Your task to perform on an android device: Open calendar and show me the fourth week of next month Image 0: 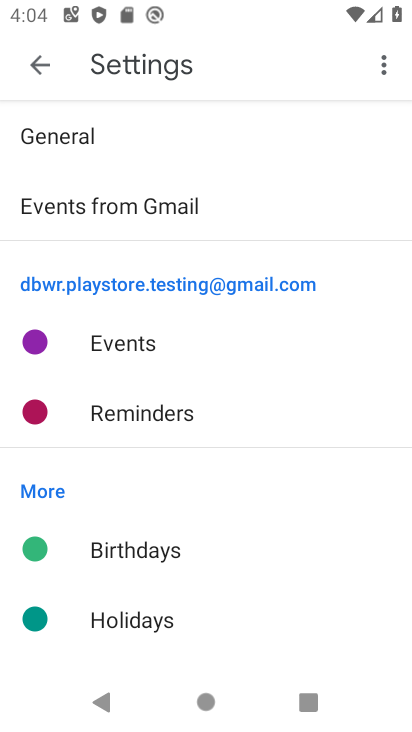
Step 0: press home button
Your task to perform on an android device: Open calendar and show me the fourth week of next month Image 1: 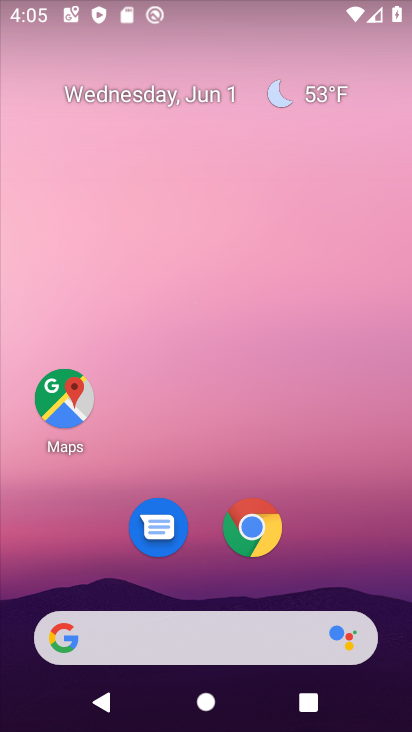
Step 1: drag from (311, 571) to (336, 93)
Your task to perform on an android device: Open calendar and show me the fourth week of next month Image 2: 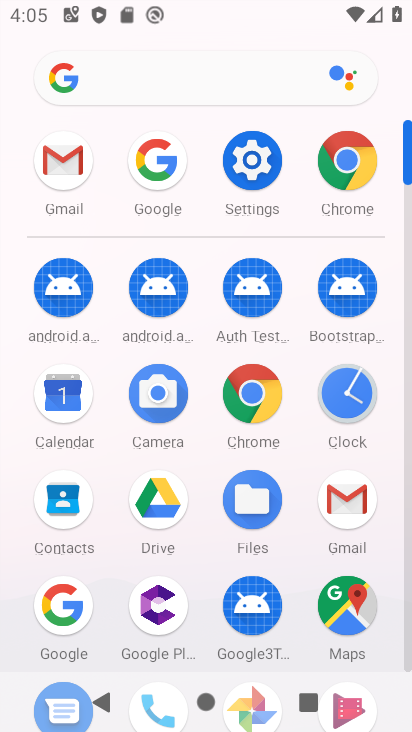
Step 2: click (61, 380)
Your task to perform on an android device: Open calendar and show me the fourth week of next month Image 3: 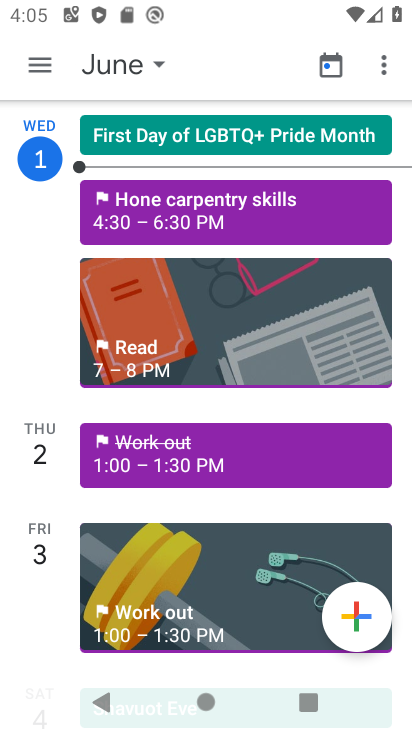
Step 3: click (143, 65)
Your task to perform on an android device: Open calendar and show me the fourth week of next month Image 4: 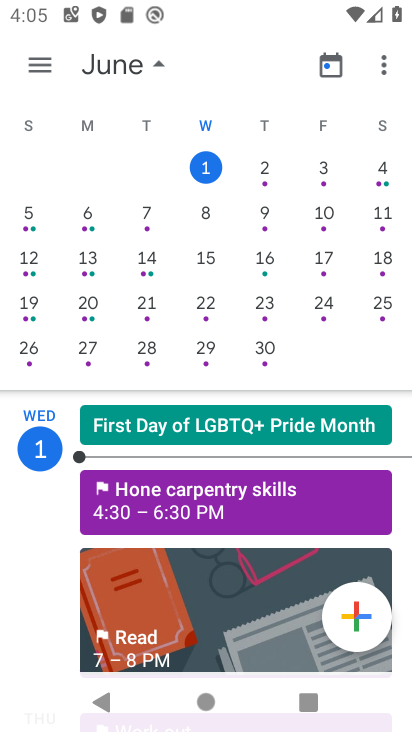
Step 4: drag from (390, 243) to (39, 232)
Your task to perform on an android device: Open calendar and show me the fourth week of next month Image 5: 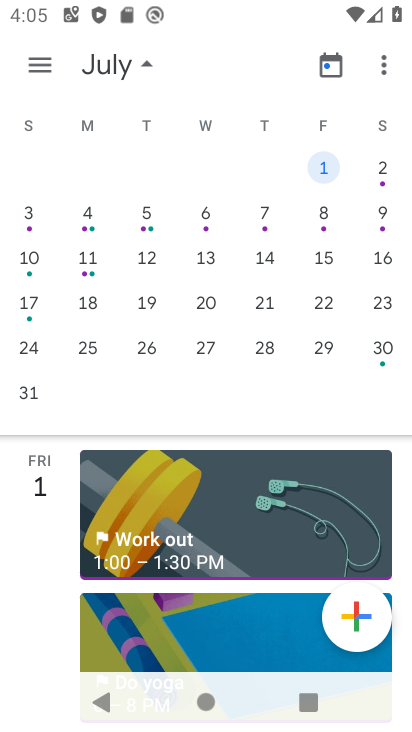
Step 5: click (262, 347)
Your task to perform on an android device: Open calendar and show me the fourth week of next month Image 6: 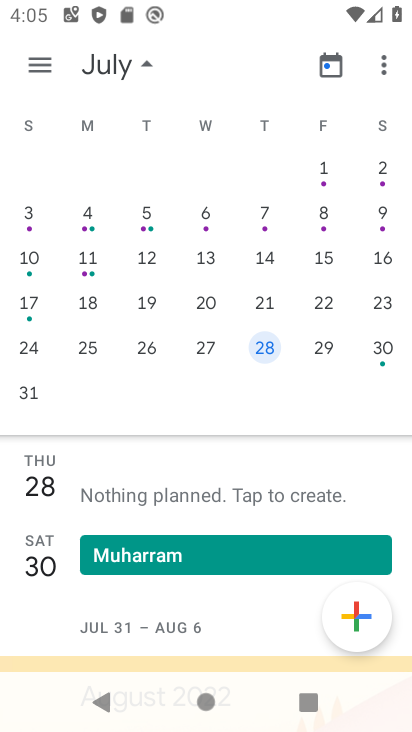
Step 6: task complete